Your task to perform on an android device: see tabs open on other devices in the chrome app Image 0: 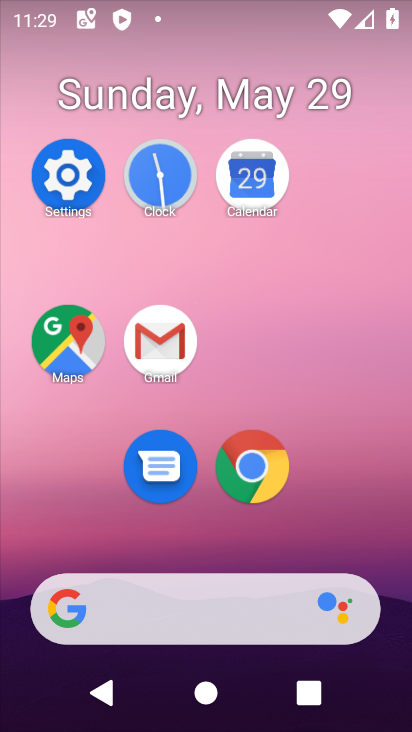
Step 0: click (265, 462)
Your task to perform on an android device: see tabs open on other devices in the chrome app Image 1: 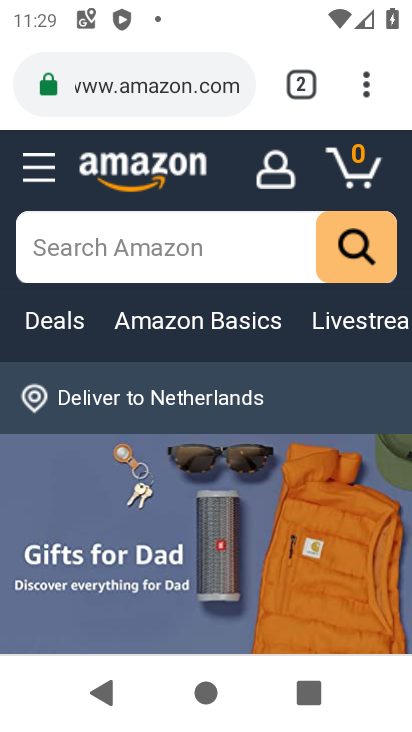
Step 1: click (281, 99)
Your task to perform on an android device: see tabs open on other devices in the chrome app Image 2: 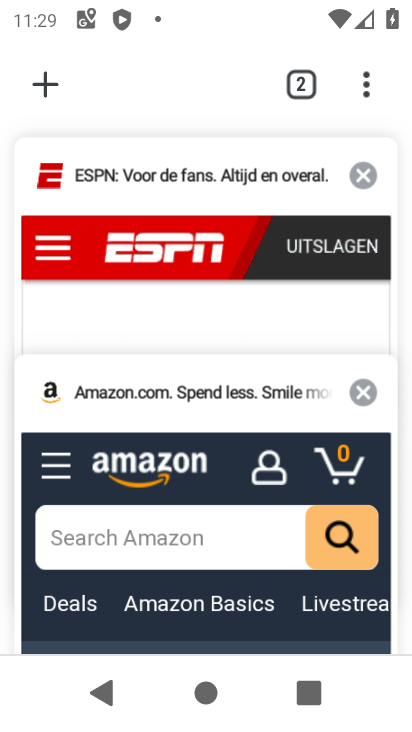
Step 2: click (362, 86)
Your task to perform on an android device: see tabs open on other devices in the chrome app Image 3: 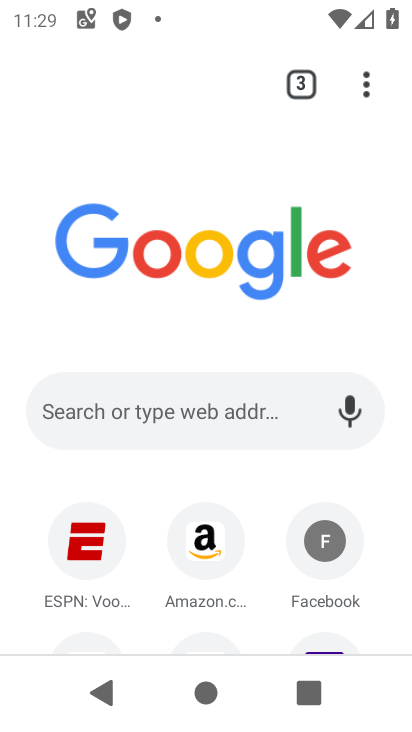
Step 3: click (384, 95)
Your task to perform on an android device: see tabs open on other devices in the chrome app Image 4: 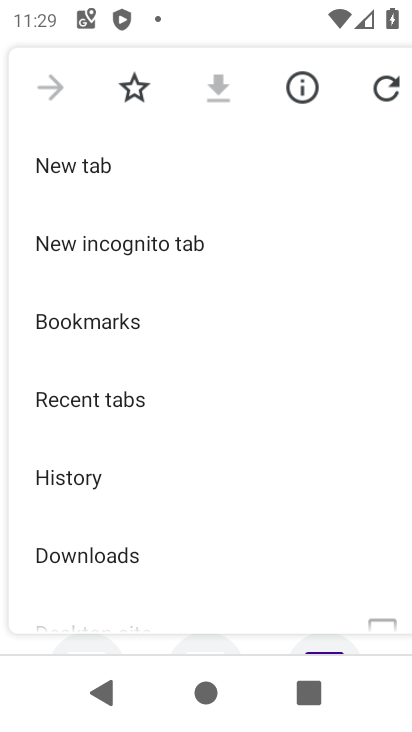
Step 4: click (151, 412)
Your task to perform on an android device: see tabs open on other devices in the chrome app Image 5: 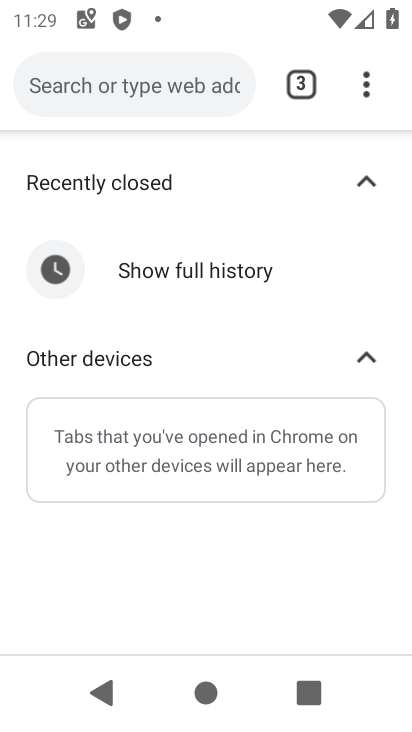
Step 5: click (162, 287)
Your task to perform on an android device: see tabs open on other devices in the chrome app Image 6: 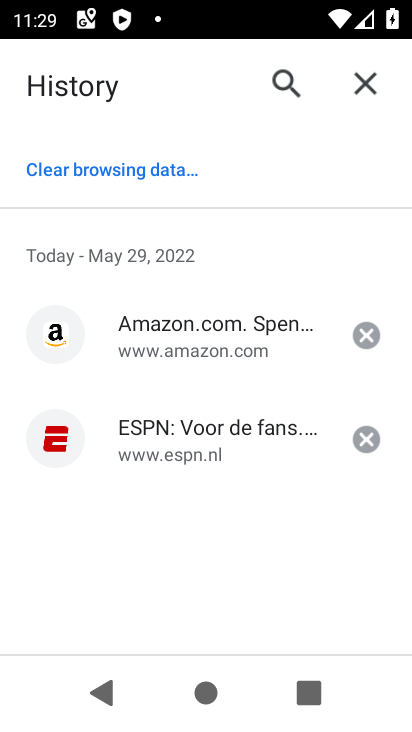
Step 6: task complete